Your task to perform on an android device: Go to Google Image 0: 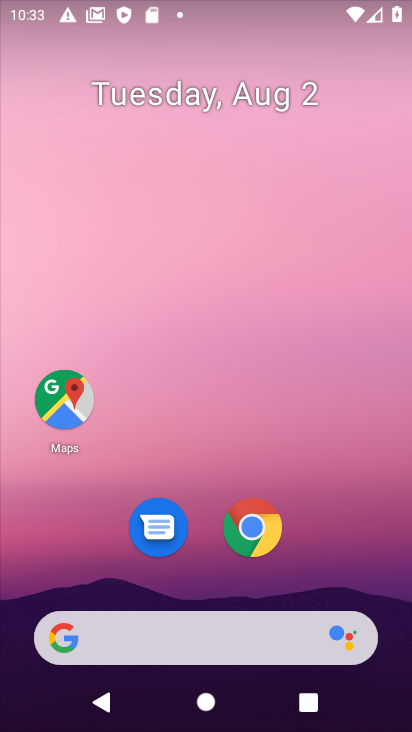
Step 0: drag from (203, 587) to (214, 9)
Your task to perform on an android device: Go to Google Image 1: 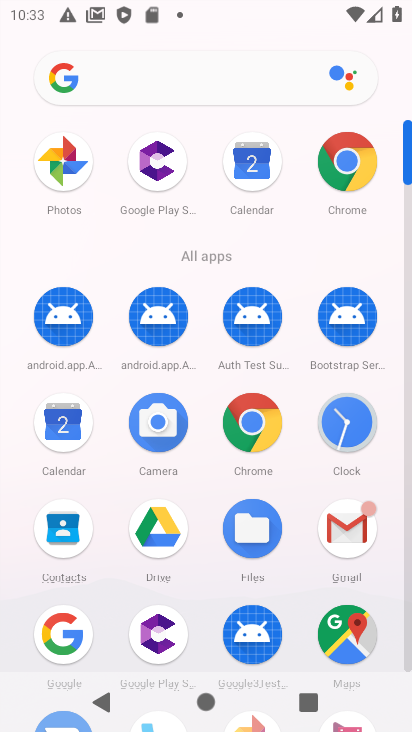
Step 1: click (61, 628)
Your task to perform on an android device: Go to Google Image 2: 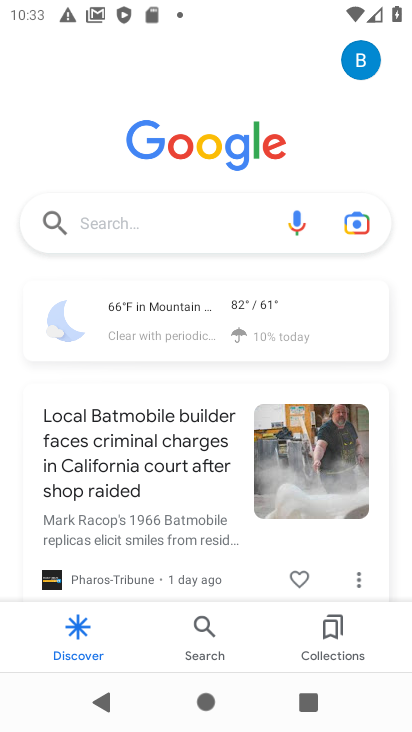
Step 2: task complete